Your task to perform on an android device: See recent photos Image 0: 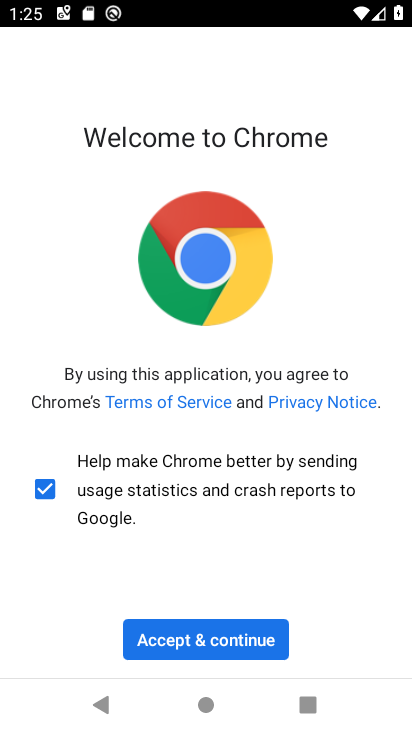
Step 0: press home button
Your task to perform on an android device: See recent photos Image 1: 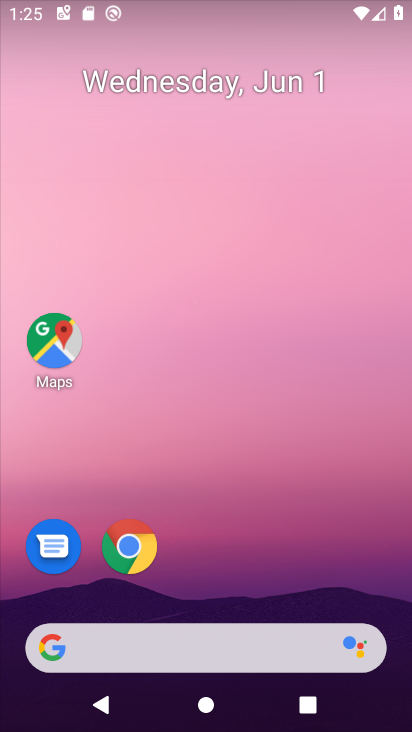
Step 1: drag from (152, 721) to (221, 158)
Your task to perform on an android device: See recent photos Image 2: 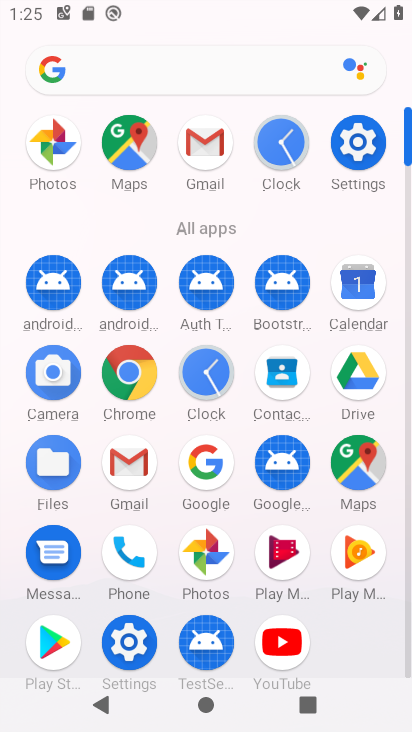
Step 2: click (55, 141)
Your task to perform on an android device: See recent photos Image 3: 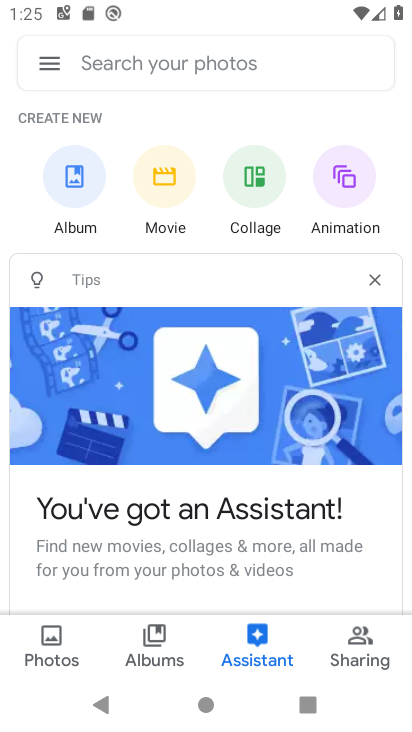
Step 3: click (57, 654)
Your task to perform on an android device: See recent photos Image 4: 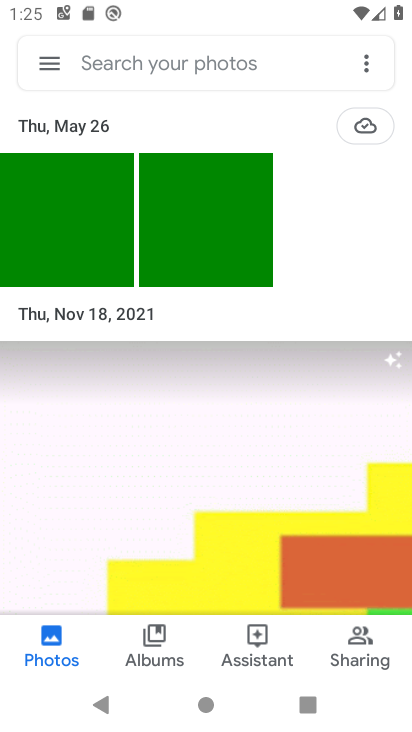
Step 4: click (237, 240)
Your task to perform on an android device: See recent photos Image 5: 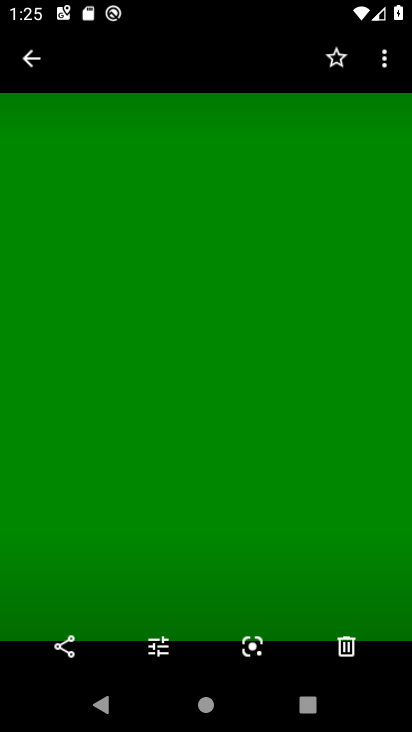
Step 5: task complete